Your task to perform on an android device: uninstall "Flipkart Online Shopping App" Image 0: 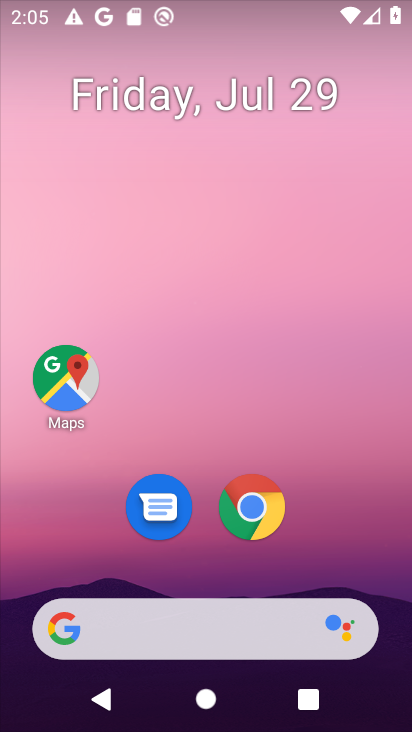
Step 0: drag from (205, 535) to (185, 21)
Your task to perform on an android device: uninstall "Flipkart Online Shopping App" Image 1: 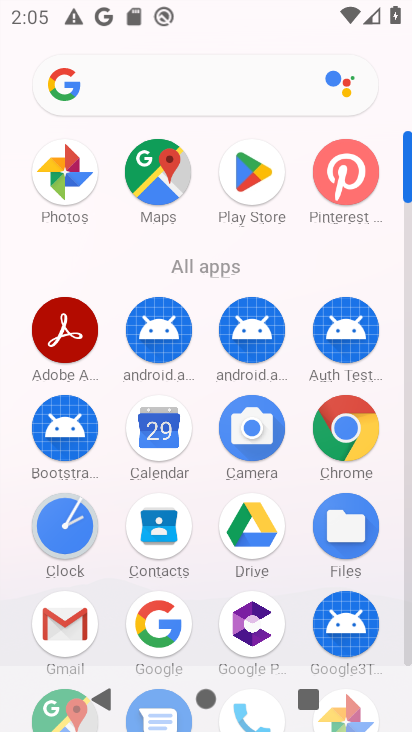
Step 1: click (408, 656)
Your task to perform on an android device: uninstall "Flipkart Online Shopping App" Image 2: 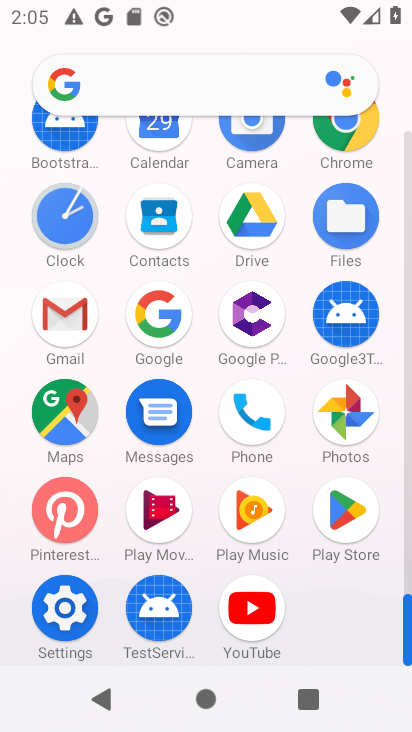
Step 2: click (340, 545)
Your task to perform on an android device: uninstall "Flipkart Online Shopping App" Image 3: 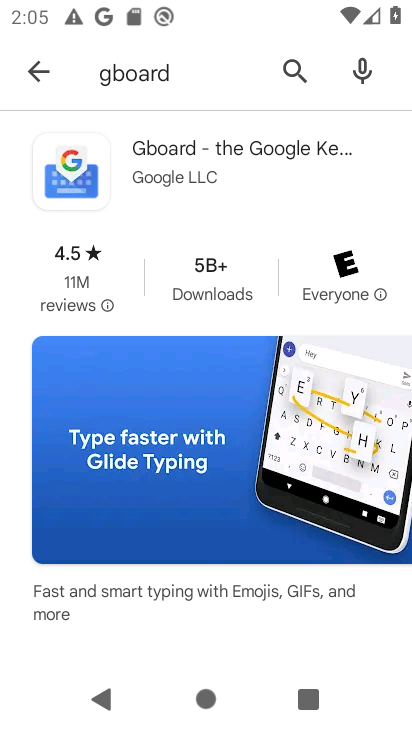
Step 3: click (284, 83)
Your task to perform on an android device: uninstall "Flipkart Online Shopping App" Image 4: 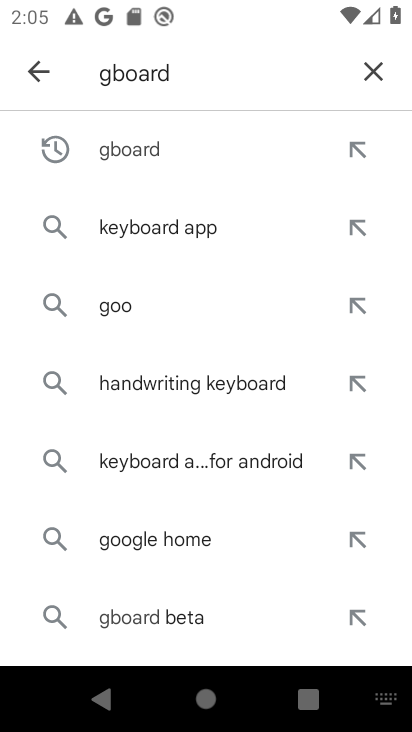
Step 4: click (368, 61)
Your task to perform on an android device: uninstall "Flipkart Online Shopping App" Image 5: 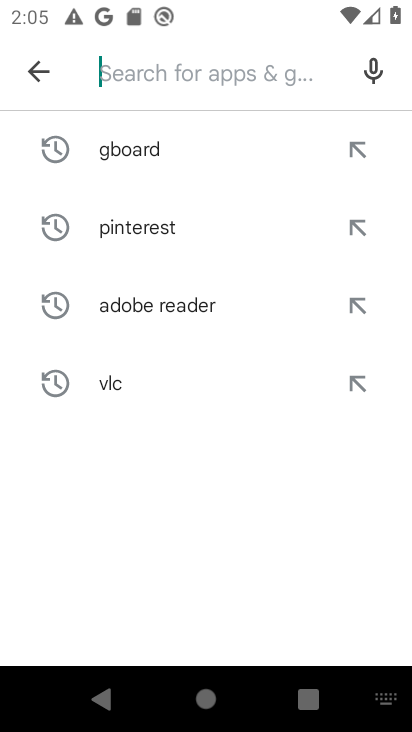
Step 5: type "flipkart"
Your task to perform on an android device: uninstall "Flipkart Online Shopping App" Image 6: 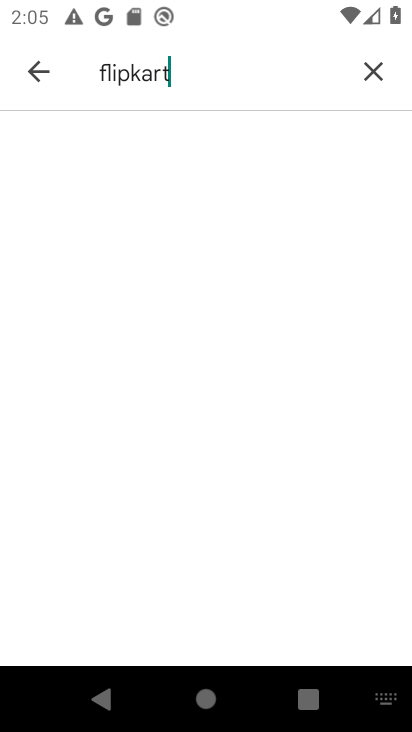
Step 6: task complete